Your task to perform on an android device: Turn off the flashlight Image 0: 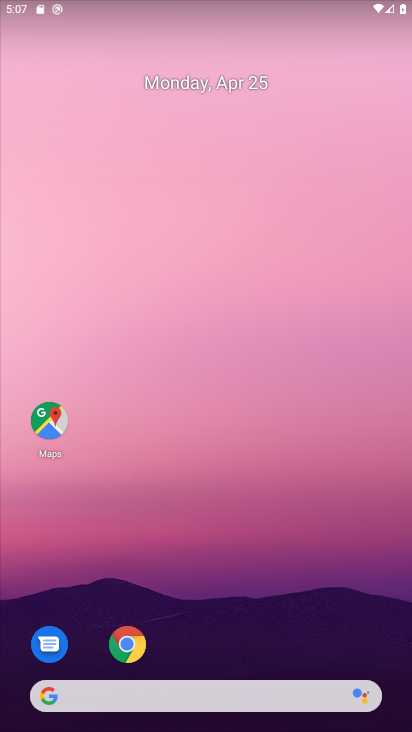
Step 0: click (217, 579)
Your task to perform on an android device: Turn off the flashlight Image 1: 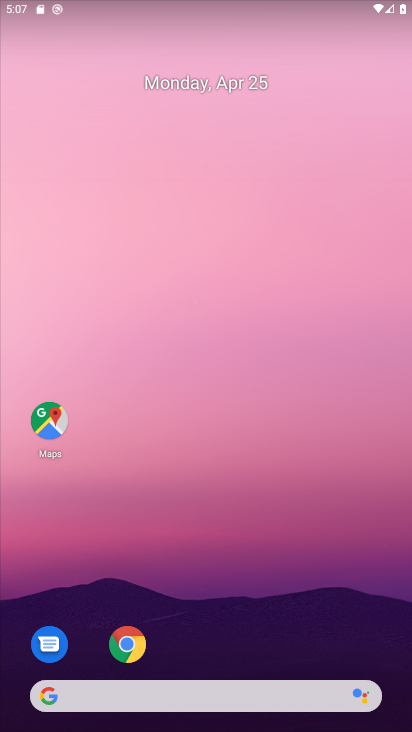
Step 1: task complete